Your task to perform on an android device: Do I have any events this weekend? Image 0: 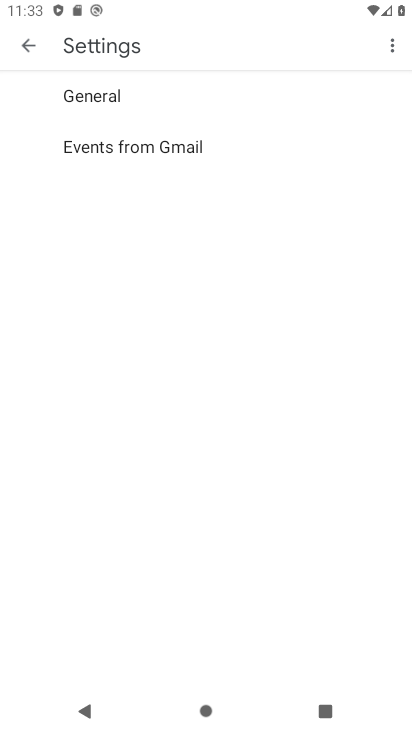
Step 0: press home button
Your task to perform on an android device: Do I have any events this weekend? Image 1: 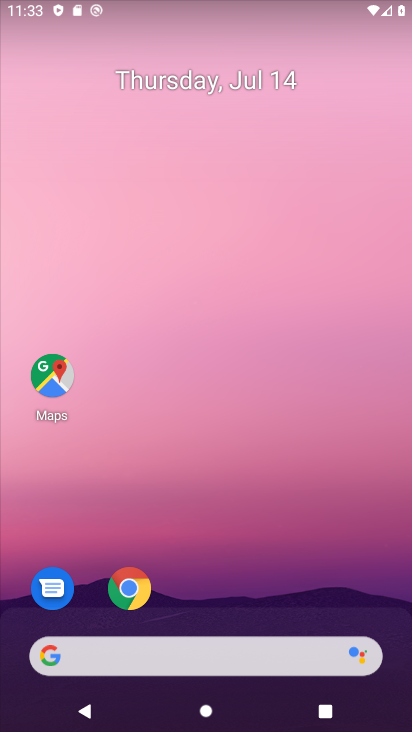
Step 1: drag from (176, 696) to (398, 48)
Your task to perform on an android device: Do I have any events this weekend? Image 2: 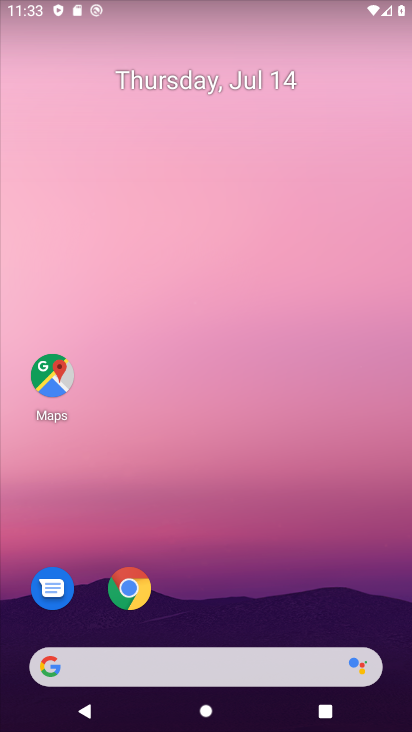
Step 2: drag from (156, 665) to (244, 47)
Your task to perform on an android device: Do I have any events this weekend? Image 3: 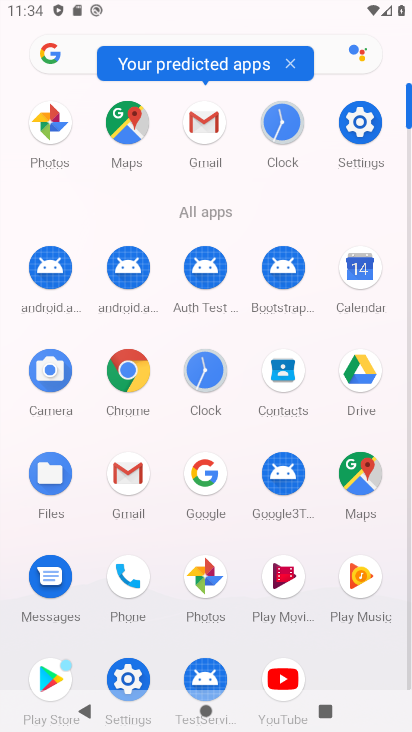
Step 3: click (363, 261)
Your task to perform on an android device: Do I have any events this weekend? Image 4: 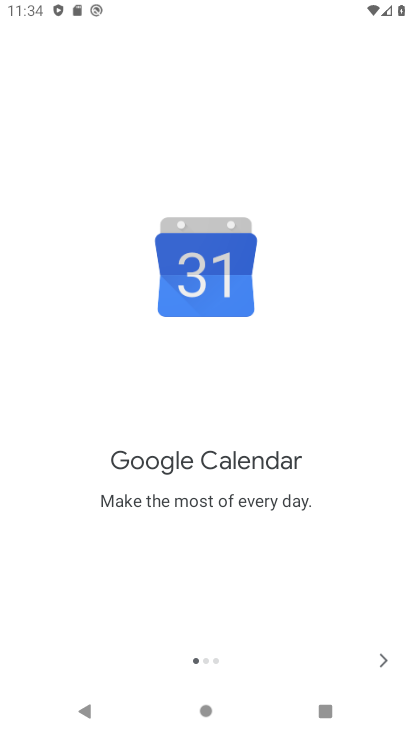
Step 4: click (387, 663)
Your task to perform on an android device: Do I have any events this weekend? Image 5: 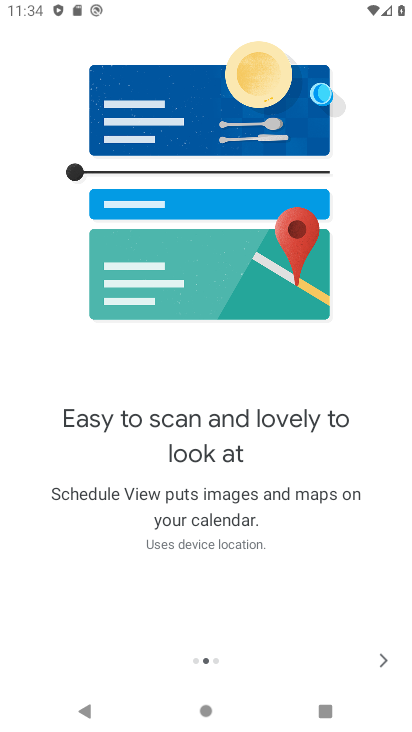
Step 5: click (378, 661)
Your task to perform on an android device: Do I have any events this weekend? Image 6: 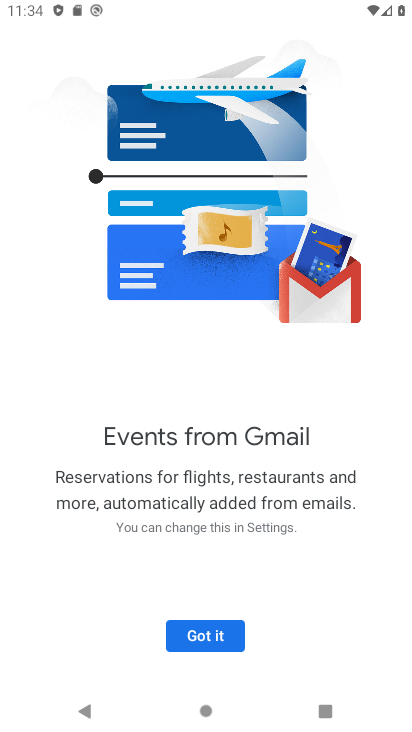
Step 6: click (231, 641)
Your task to perform on an android device: Do I have any events this weekend? Image 7: 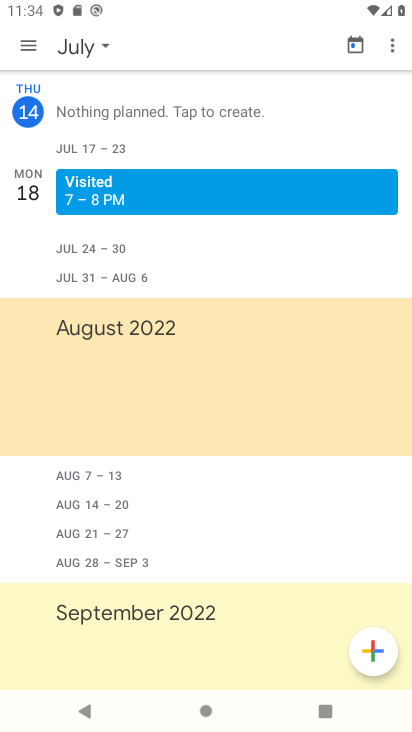
Step 7: click (65, 52)
Your task to perform on an android device: Do I have any events this weekend? Image 8: 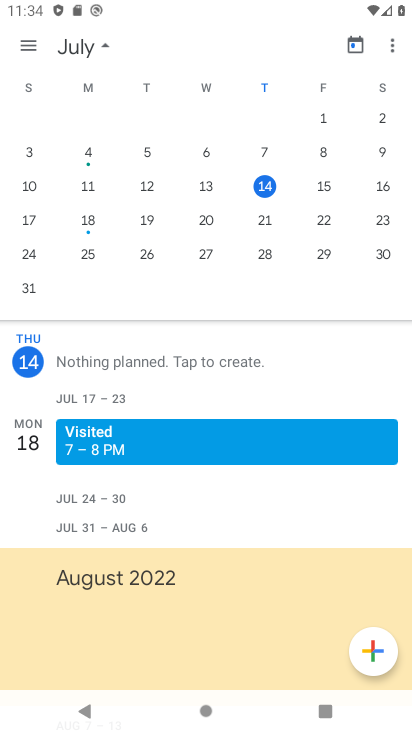
Step 8: click (352, 46)
Your task to perform on an android device: Do I have any events this weekend? Image 9: 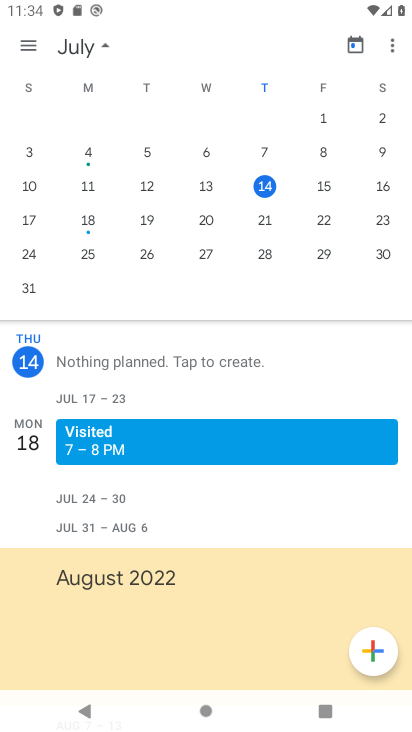
Step 9: task complete